Your task to perform on an android device: Do I have any events this weekend? Image 0: 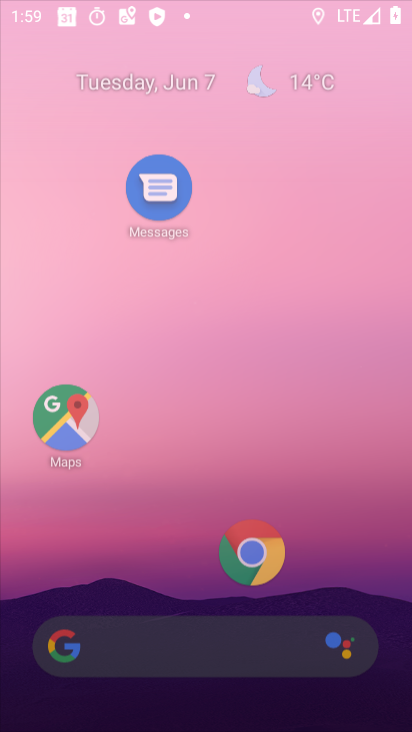
Step 0: press home button
Your task to perform on an android device: Do I have any events this weekend? Image 1: 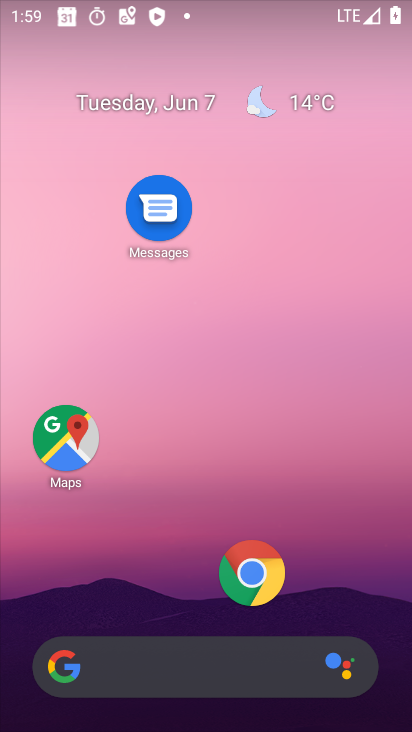
Step 1: drag from (200, 599) to (258, 140)
Your task to perform on an android device: Do I have any events this weekend? Image 2: 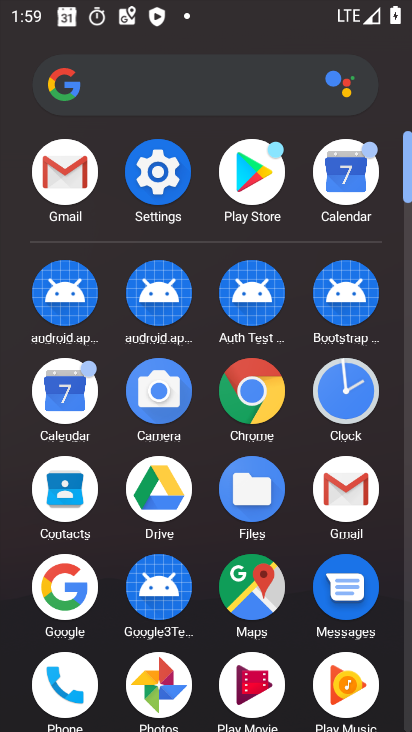
Step 2: click (57, 383)
Your task to perform on an android device: Do I have any events this weekend? Image 3: 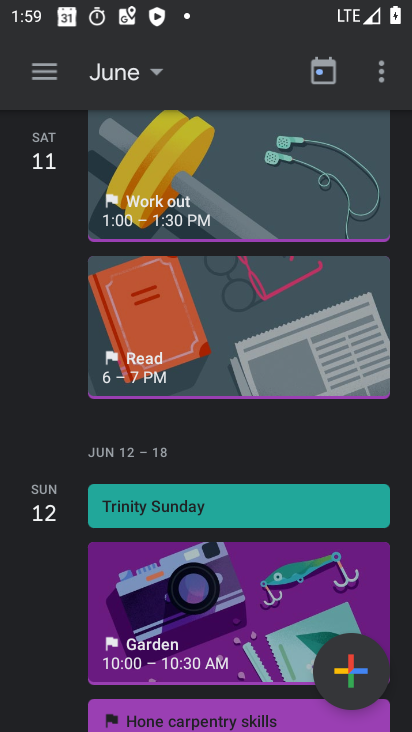
Step 3: click (154, 70)
Your task to perform on an android device: Do I have any events this weekend? Image 4: 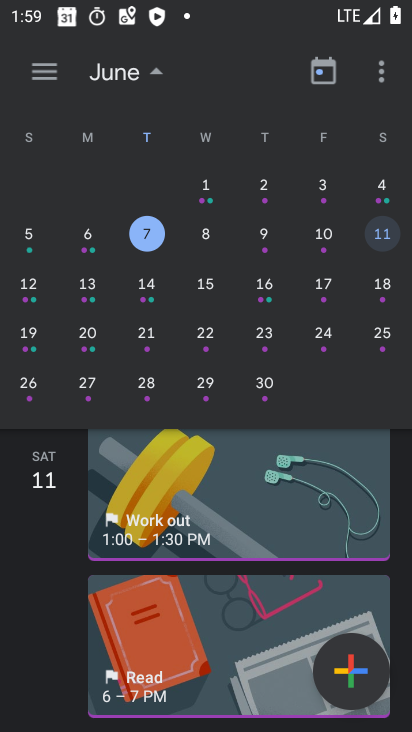
Step 4: click (148, 228)
Your task to perform on an android device: Do I have any events this weekend? Image 5: 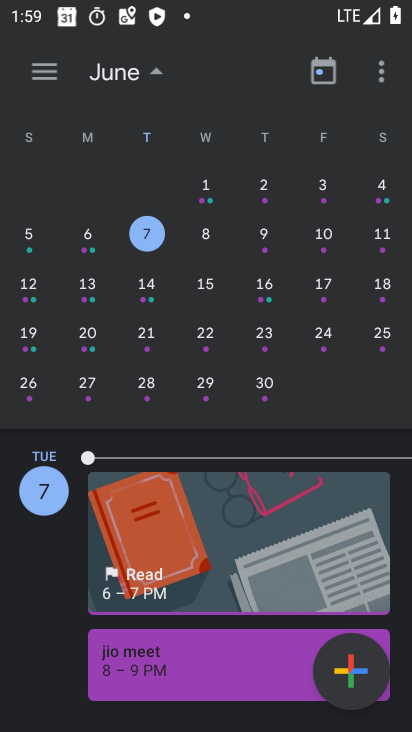
Step 5: click (155, 62)
Your task to perform on an android device: Do I have any events this weekend? Image 6: 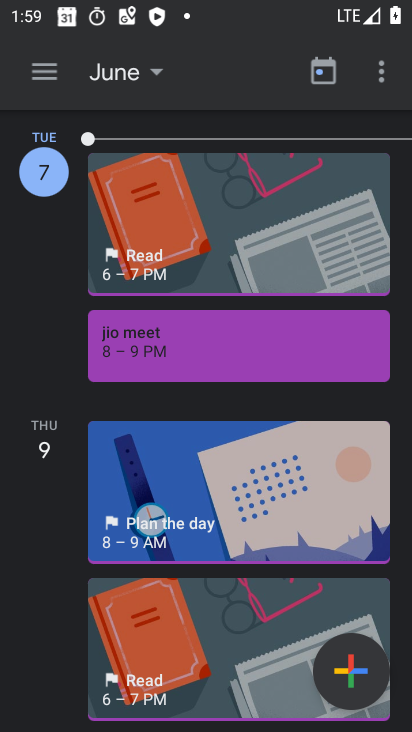
Step 6: drag from (44, 509) to (62, 224)
Your task to perform on an android device: Do I have any events this weekend? Image 7: 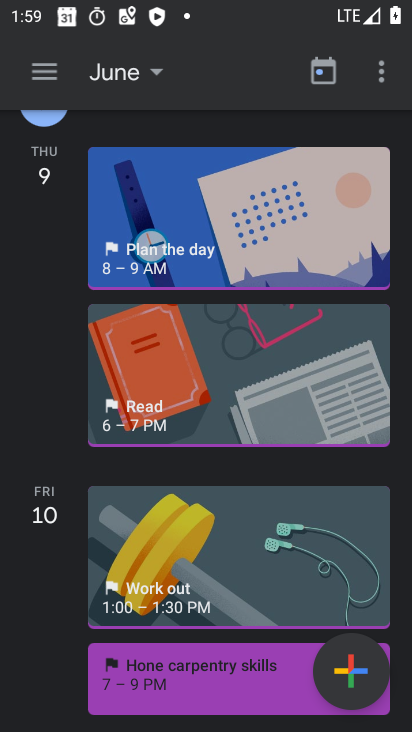
Step 7: click (72, 155)
Your task to perform on an android device: Do I have any events this weekend? Image 8: 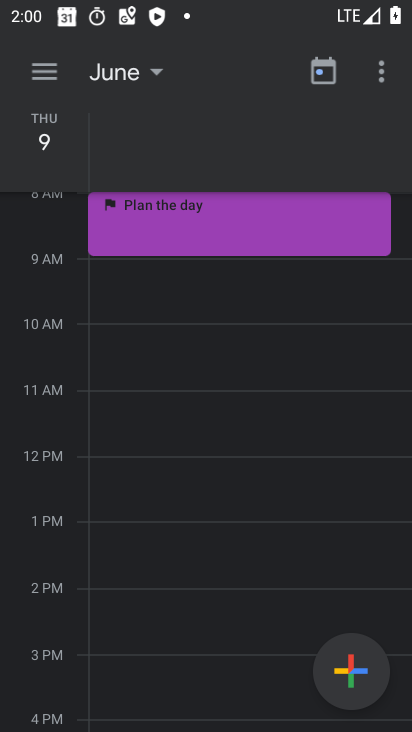
Step 8: drag from (49, 559) to (56, 221)
Your task to perform on an android device: Do I have any events this weekend? Image 9: 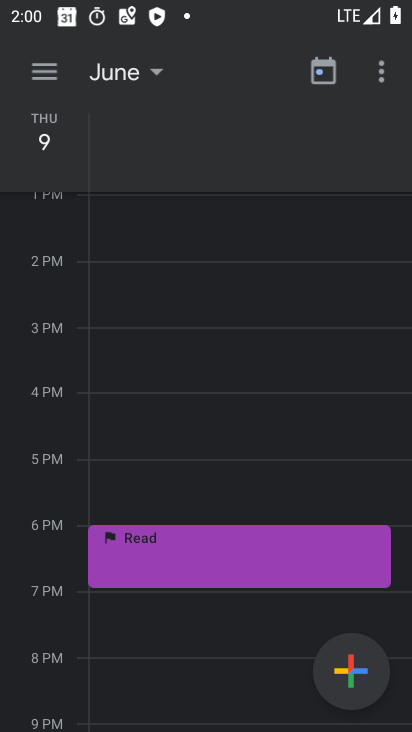
Step 9: click (69, 146)
Your task to perform on an android device: Do I have any events this weekend? Image 10: 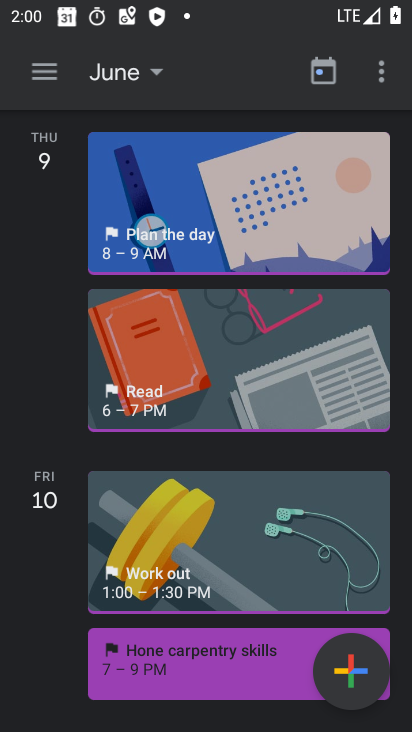
Step 10: task complete